Your task to perform on an android device: see sites visited before in the chrome app Image 0: 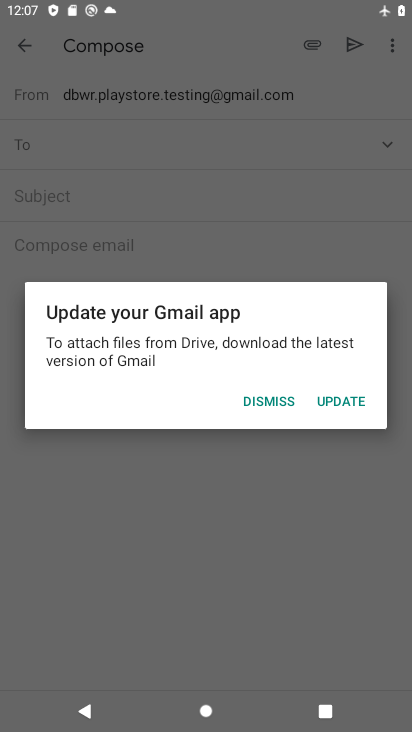
Step 0: press home button
Your task to perform on an android device: see sites visited before in the chrome app Image 1: 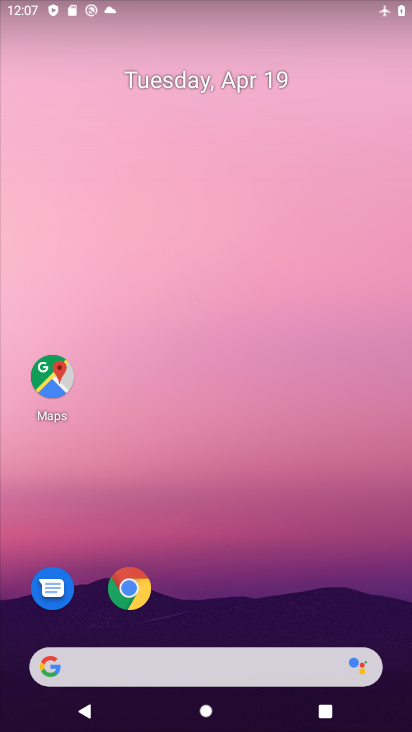
Step 1: drag from (357, 601) to (333, 36)
Your task to perform on an android device: see sites visited before in the chrome app Image 2: 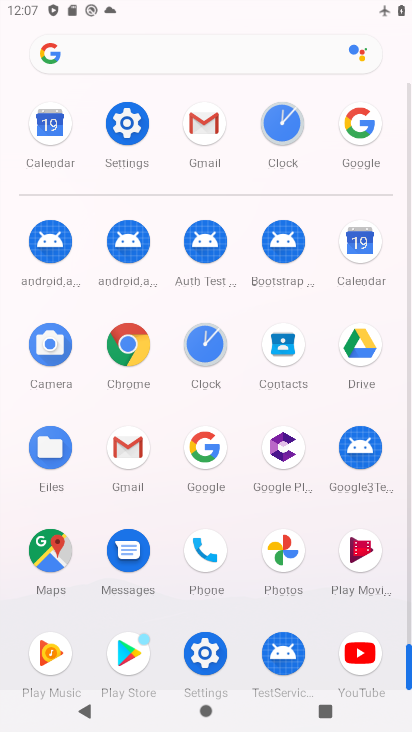
Step 2: click (130, 352)
Your task to perform on an android device: see sites visited before in the chrome app Image 3: 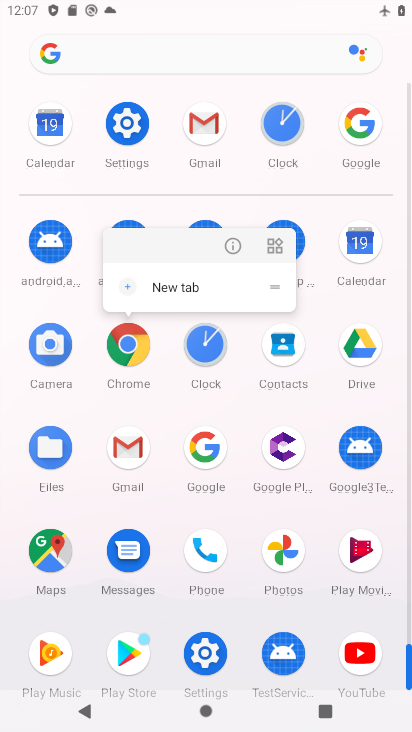
Step 3: click (130, 352)
Your task to perform on an android device: see sites visited before in the chrome app Image 4: 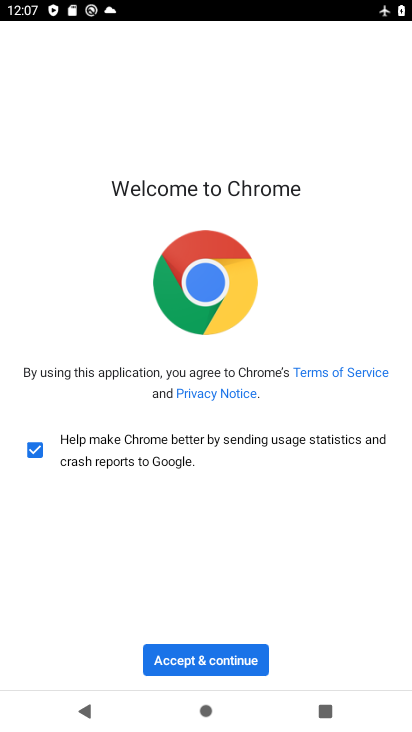
Step 4: click (229, 662)
Your task to perform on an android device: see sites visited before in the chrome app Image 5: 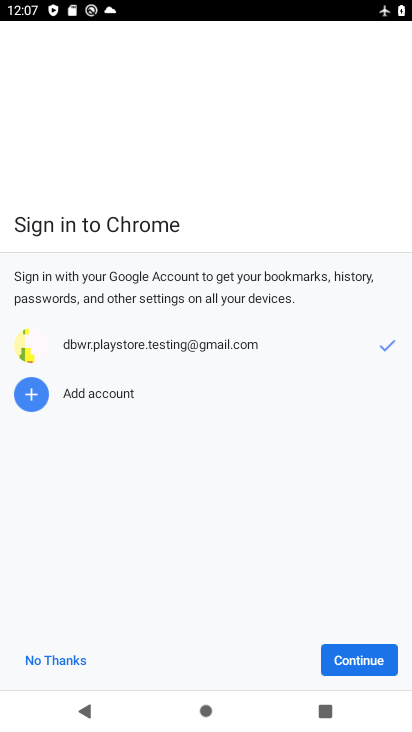
Step 5: click (352, 664)
Your task to perform on an android device: see sites visited before in the chrome app Image 6: 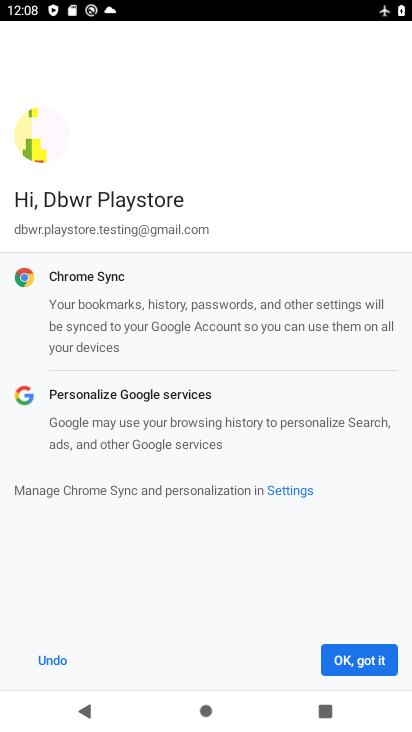
Step 6: click (349, 657)
Your task to perform on an android device: see sites visited before in the chrome app Image 7: 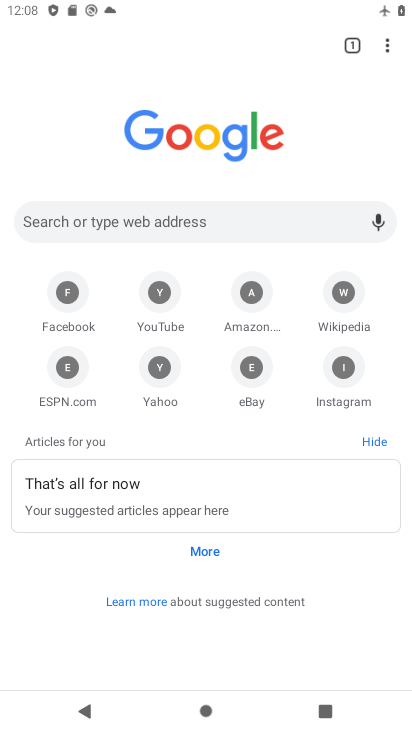
Step 7: click (388, 45)
Your task to perform on an android device: see sites visited before in the chrome app Image 8: 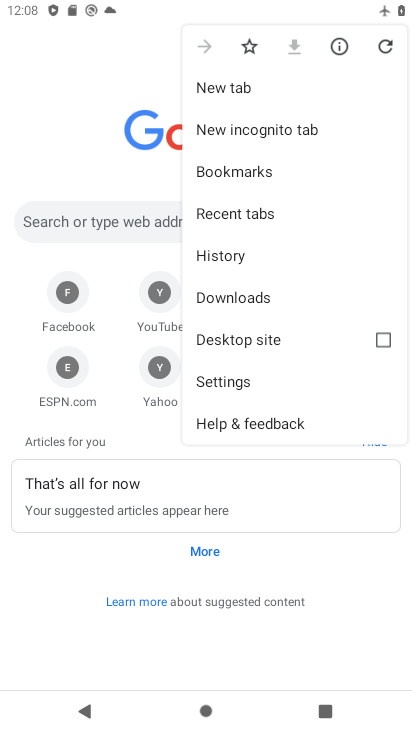
Step 8: click (239, 255)
Your task to perform on an android device: see sites visited before in the chrome app Image 9: 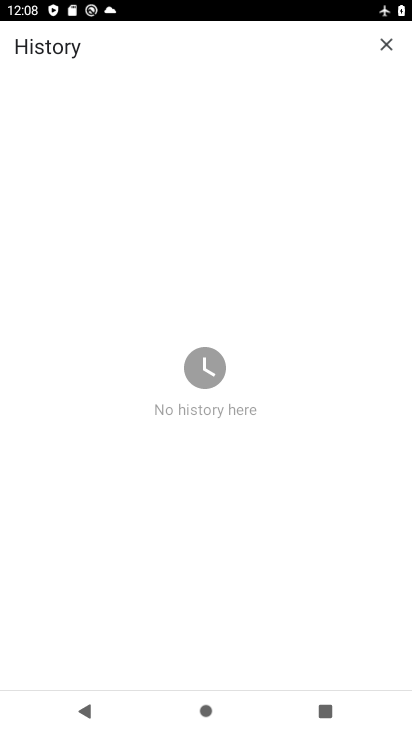
Step 9: task complete